Your task to perform on an android device: toggle data saver in the chrome app Image 0: 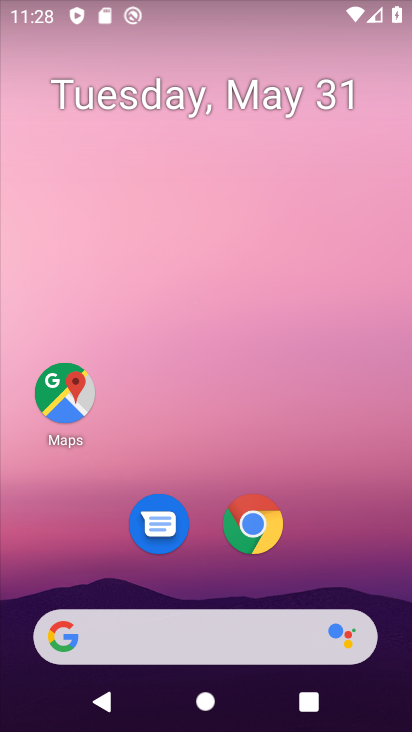
Step 0: click (265, 516)
Your task to perform on an android device: toggle data saver in the chrome app Image 1: 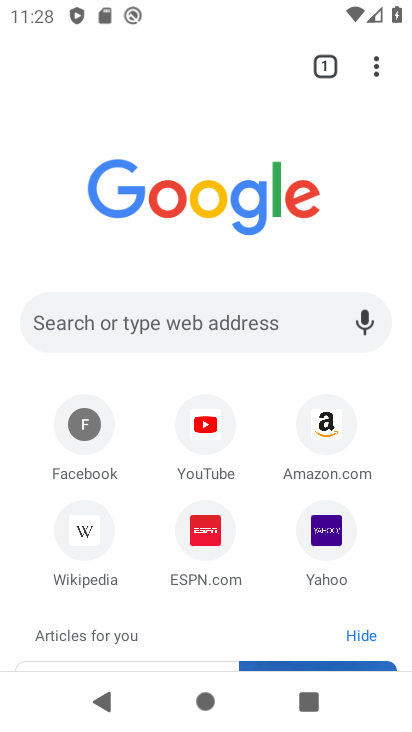
Step 1: click (377, 63)
Your task to perform on an android device: toggle data saver in the chrome app Image 2: 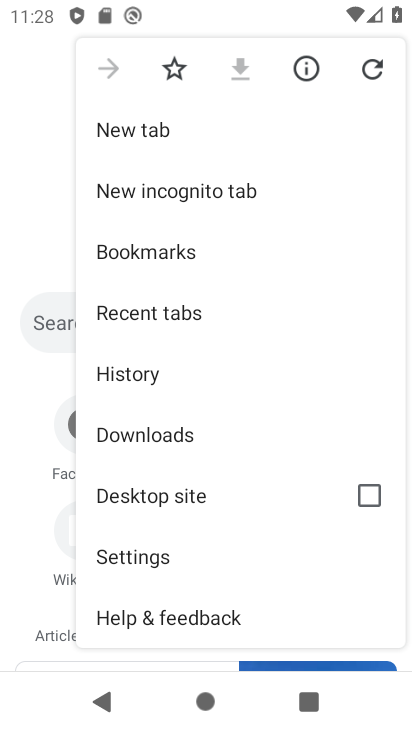
Step 2: click (199, 549)
Your task to perform on an android device: toggle data saver in the chrome app Image 3: 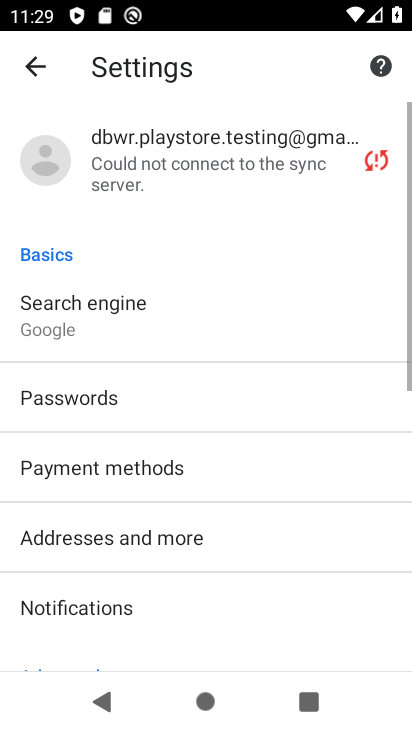
Step 3: drag from (225, 564) to (250, 0)
Your task to perform on an android device: toggle data saver in the chrome app Image 4: 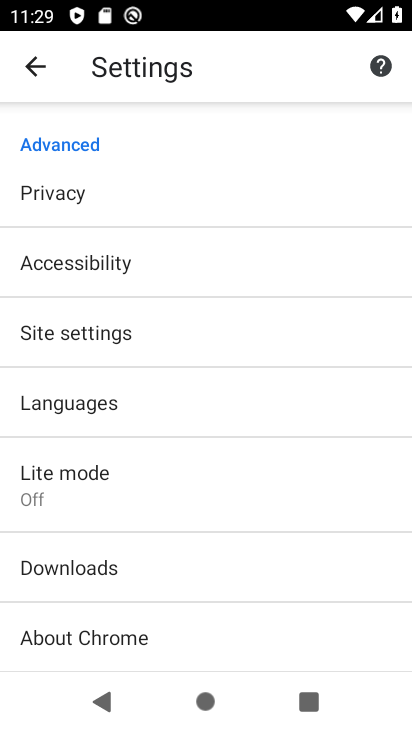
Step 4: click (168, 485)
Your task to perform on an android device: toggle data saver in the chrome app Image 5: 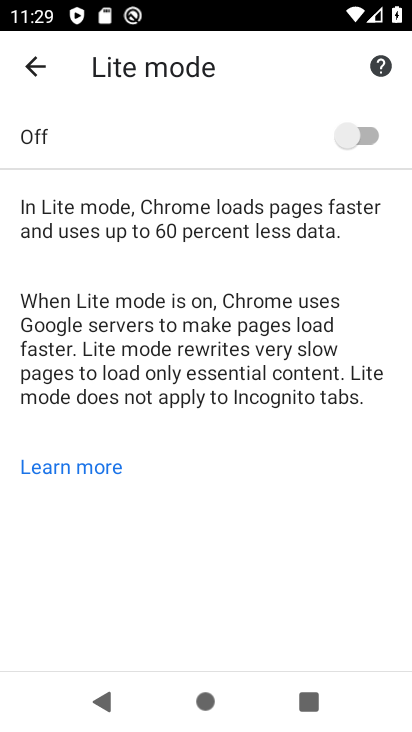
Step 5: click (358, 128)
Your task to perform on an android device: toggle data saver in the chrome app Image 6: 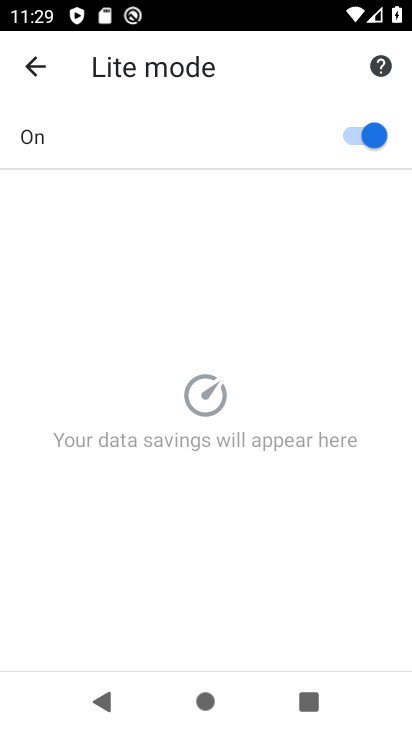
Step 6: task complete